Your task to perform on an android device: toggle location history Image 0: 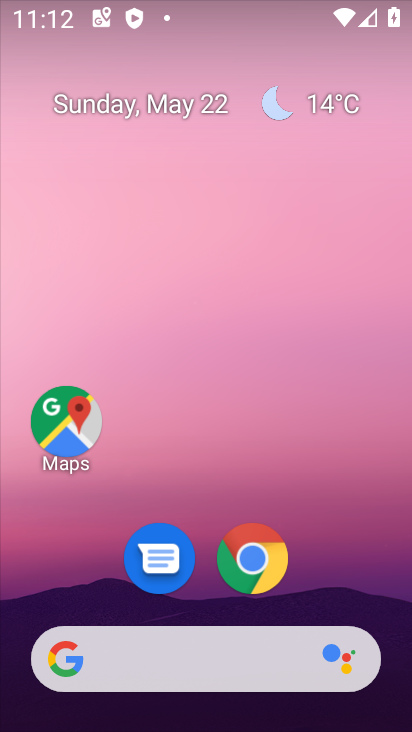
Step 0: drag from (346, 619) to (369, 580)
Your task to perform on an android device: toggle location history Image 1: 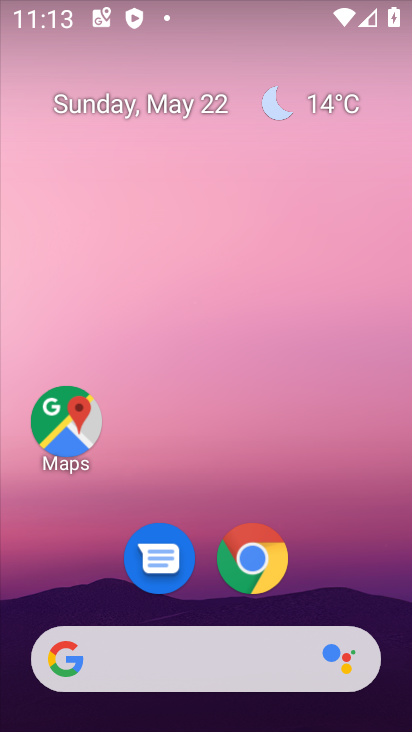
Step 1: click (66, 427)
Your task to perform on an android device: toggle location history Image 2: 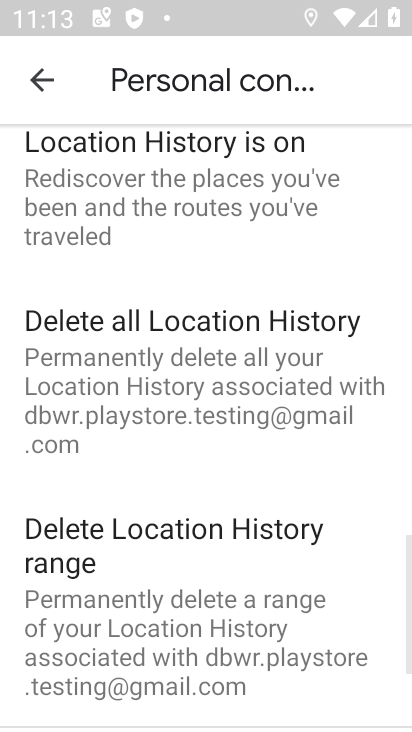
Step 2: drag from (176, 513) to (198, 139)
Your task to perform on an android device: toggle location history Image 3: 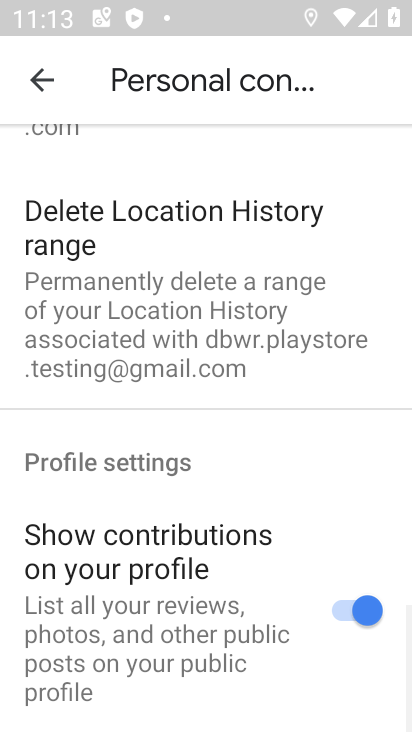
Step 3: drag from (193, 528) to (200, 160)
Your task to perform on an android device: toggle location history Image 4: 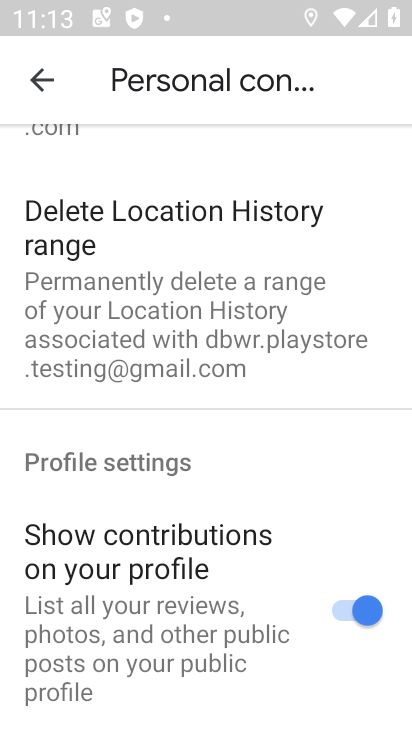
Step 4: drag from (193, 211) to (202, 594)
Your task to perform on an android device: toggle location history Image 5: 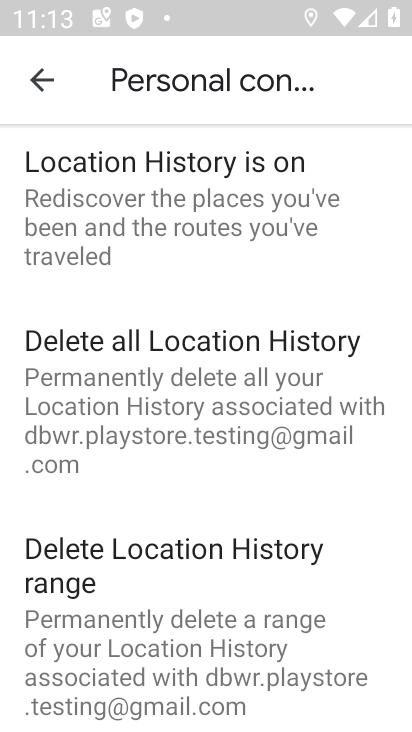
Step 5: click (154, 217)
Your task to perform on an android device: toggle location history Image 6: 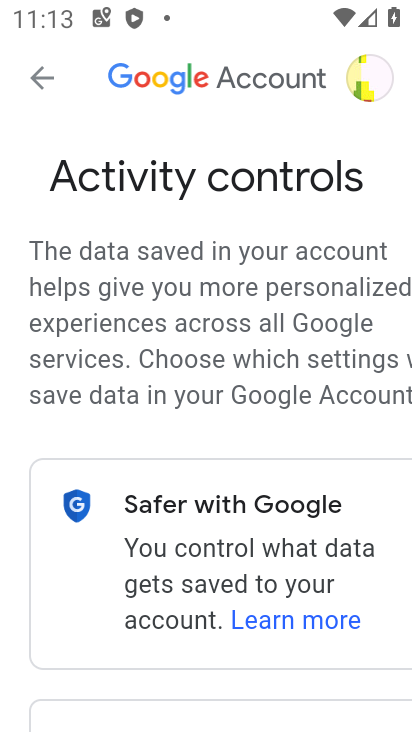
Step 6: drag from (210, 547) to (231, 82)
Your task to perform on an android device: toggle location history Image 7: 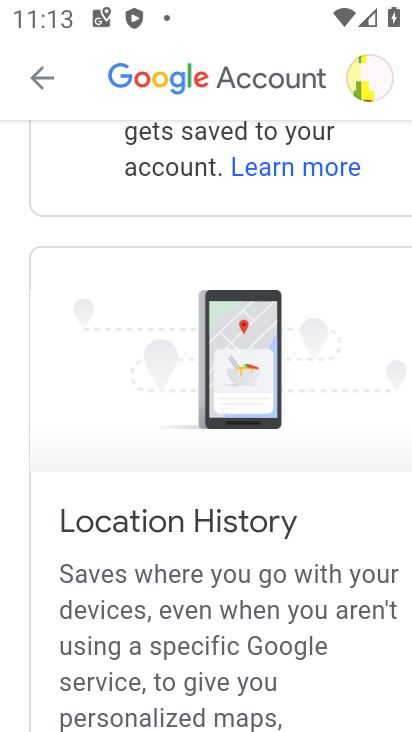
Step 7: drag from (190, 437) to (262, 92)
Your task to perform on an android device: toggle location history Image 8: 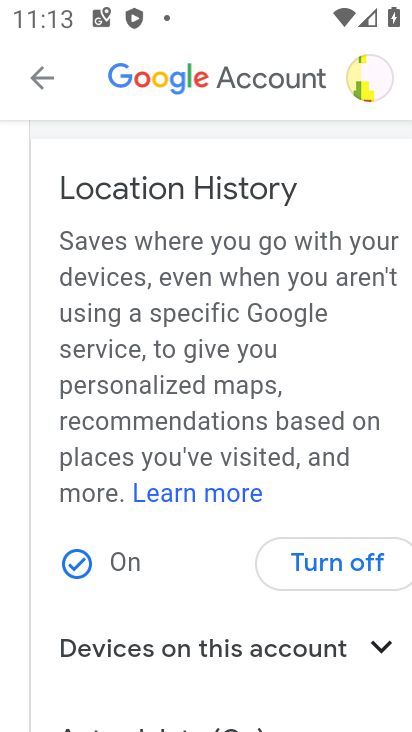
Step 8: click (346, 563)
Your task to perform on an android device: toggle location history Image 9: 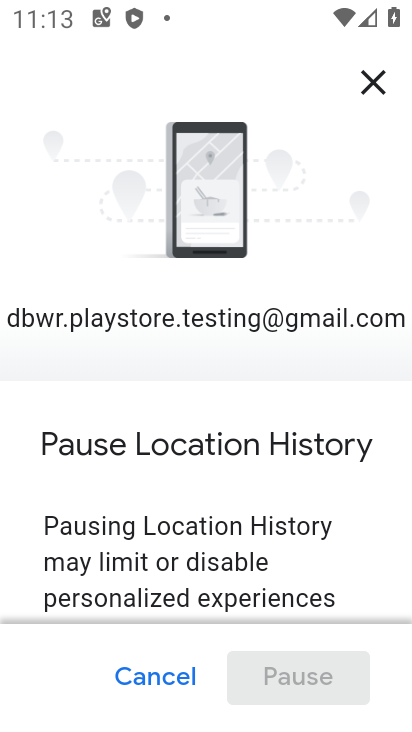
Step 9: drag from (164, 579) to (258, 48)
Your task to perform on an android device: toggle location history Image 10: 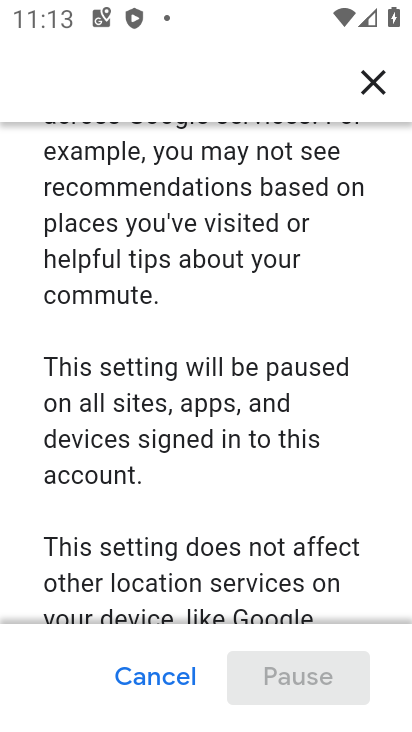
Step 10: drag from (219, 543) to (269, 71)
Your task to perform on an android device: toggle location history Image 11: 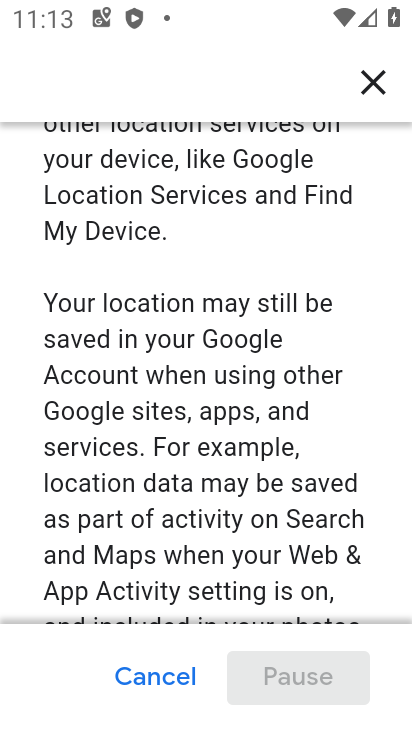
Step 11: drag from (171, 542) to (245, 108)
Your task to perform on an android device: toggle location history Image 12: 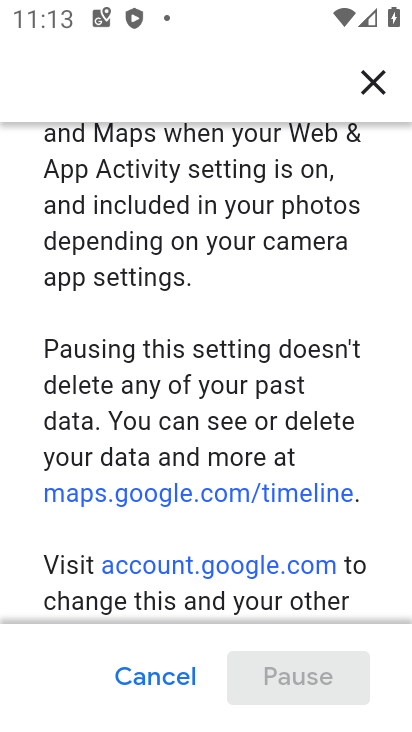
Step 12: drag from (205, 546) to (237, 127)
Your task to perform on an android device: toggle location history Image 13: 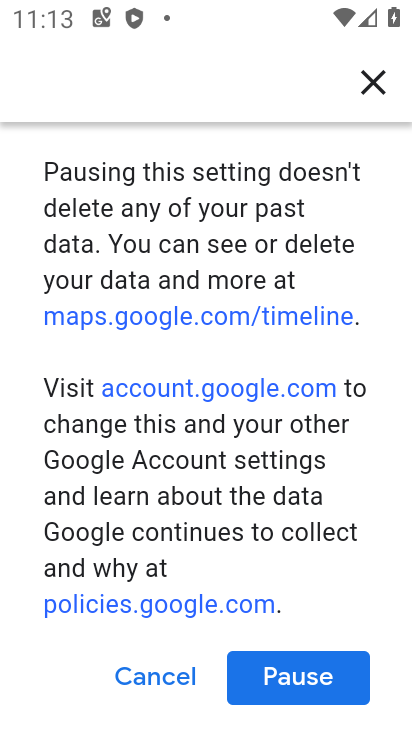
Step 13: click (292, 679)
Your task to perform on an android device: toggle location history Image 14: 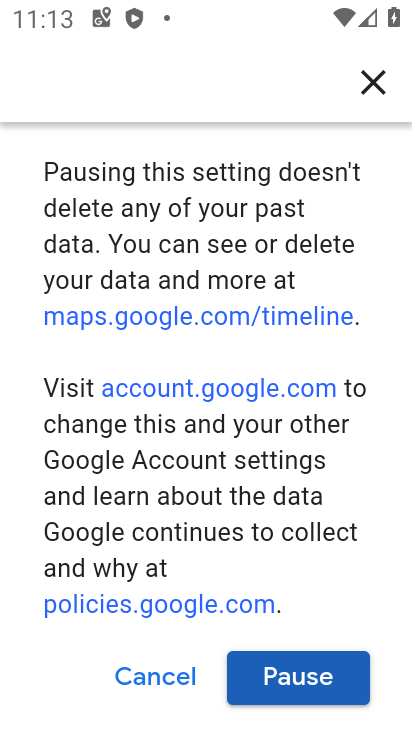
Step 14: click (296, 685)
Your task to perform on an android device: toggle location history Image 15: 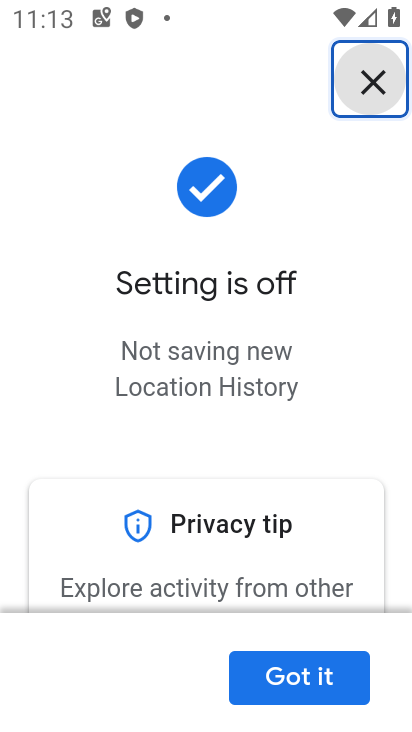
Step 15: click (304, 685)
Your task to perform on an android device: toggle location history Image 16: 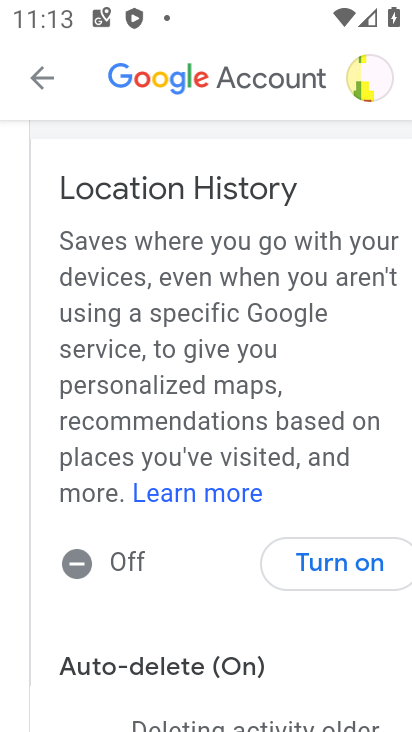
Step 16: task complete